Your task to perform on an android device: Set the phone to "Do not disturb". Image 0: 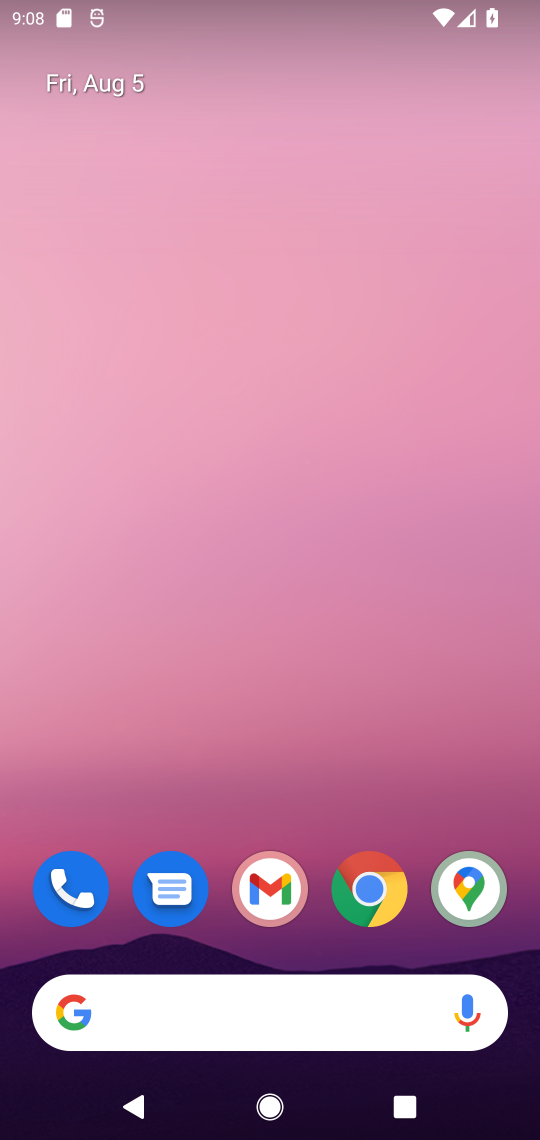
Step 0: drag from (255, 937) to (308, 159)
Your task to perform on an android device: Set the phone to "Do not disturb". Image 1: 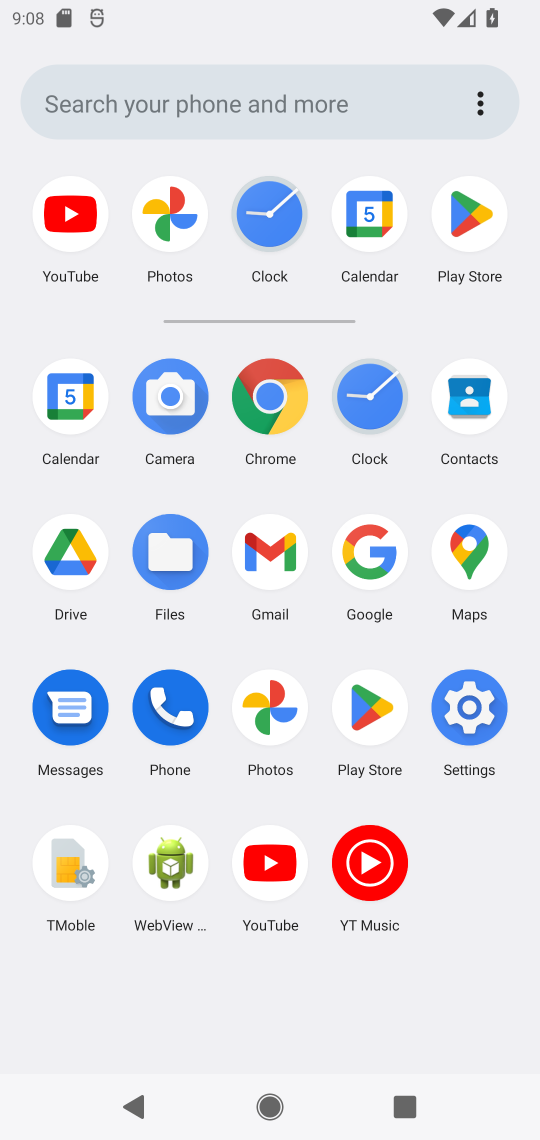
Step 1: click (469, 689)
Your task to perform on an android device: Set the phone to "Do not disturb". Image 2: 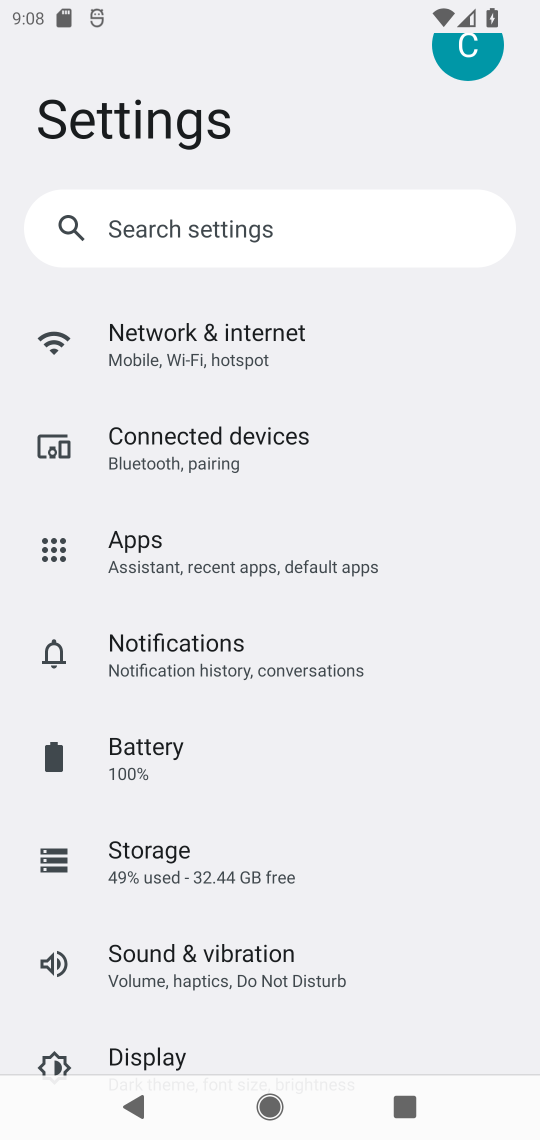
Step 2: click (197, 348)
Your task to perform on an android device: Set the phone to "Do not disturb". Image 3: 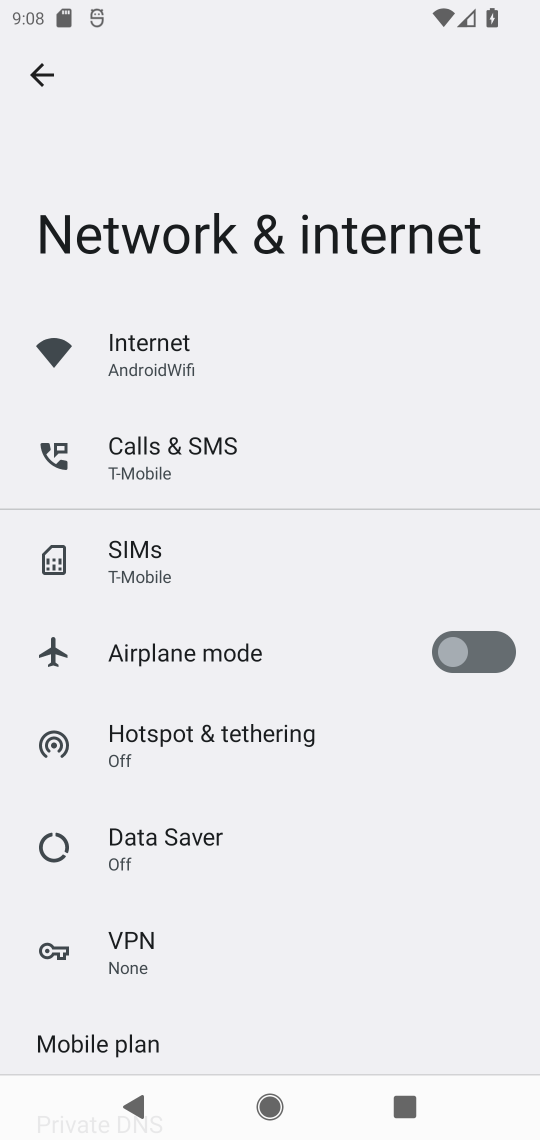
Step 3: drag from (184, 6) to (217, 924)
Your task to perform on an android device: Set the phone to "Do not disturb". Image 4: 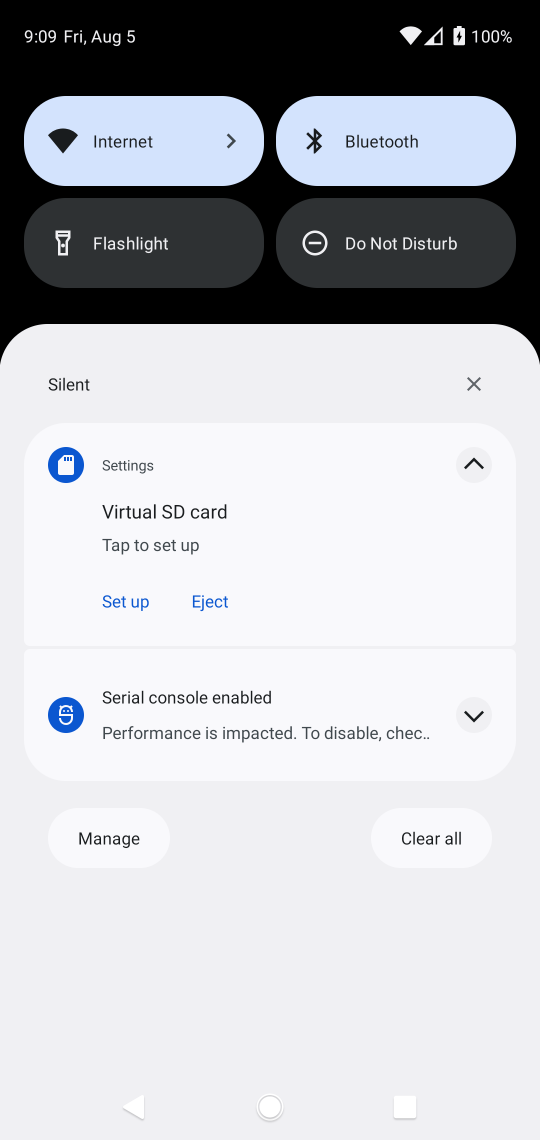
Step 4: click (346, 226)
Your task to perform on an android device: Set the phone to "Do not disturb". Image 5: 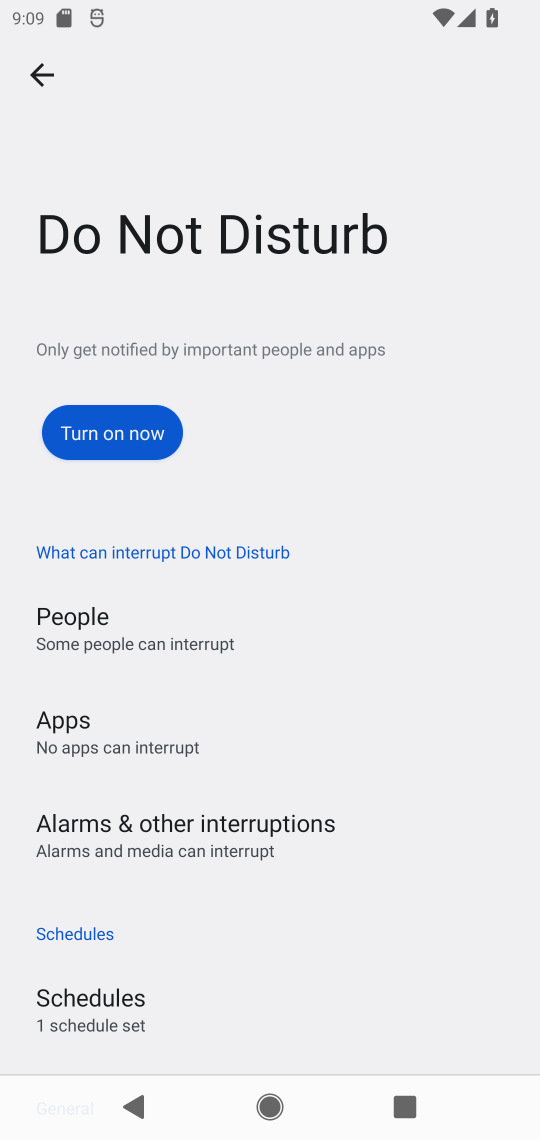
Step 5: task complete